Your task to perform on an android device: Open my contact list Image 0: 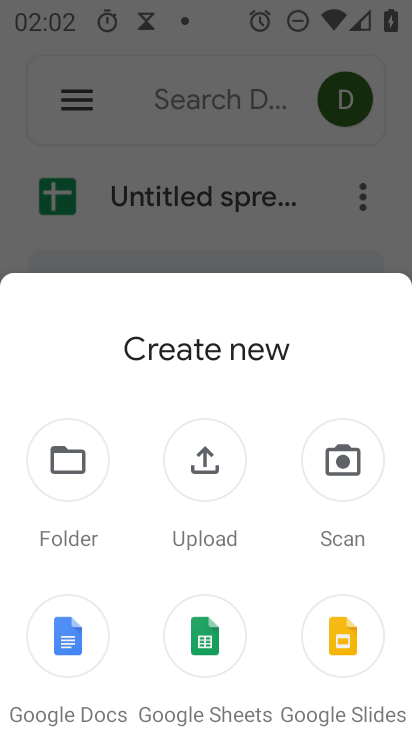
Step 0: press home button
Your task to perform on an android device: Open my contact list Image 1: 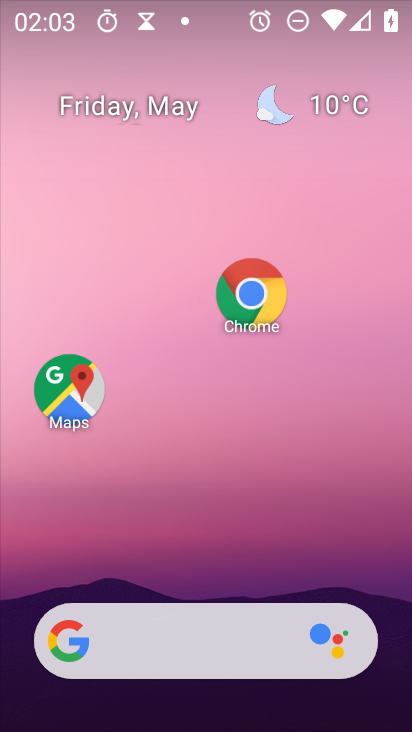
Step 1: drag from (261, 403) to (377, 52)
Your task to perform on an android device: Open my contact list Image 2: 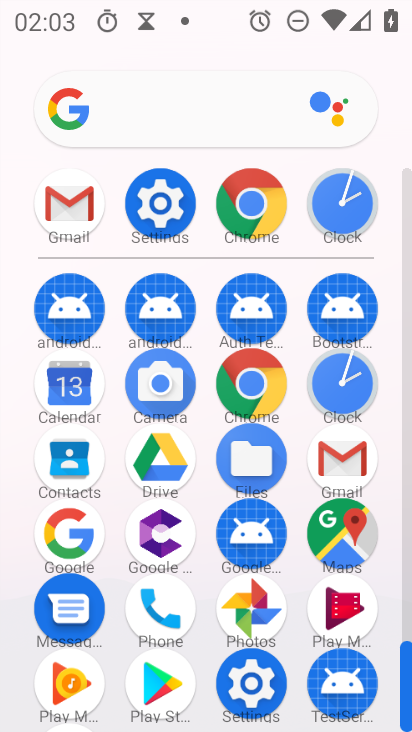
Step 2: click (63, 464)
Your task to perform on an android device: Open my contact list Image 3: 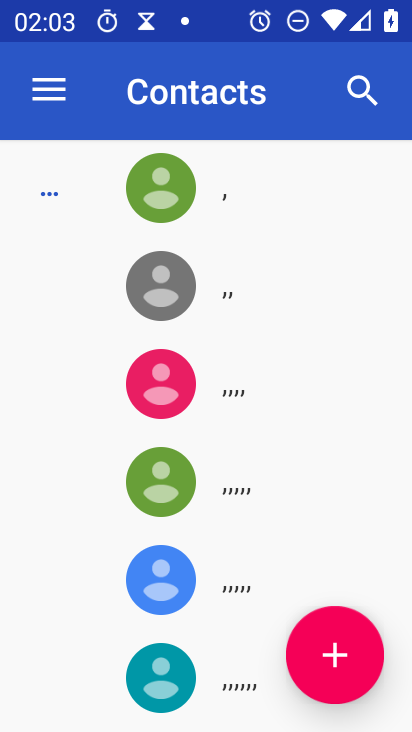
Step 3: task complete